Your task to perform on an android device: View the shopping cart on amazon. Add alienware area 51 to the cart on amazon Image 0: 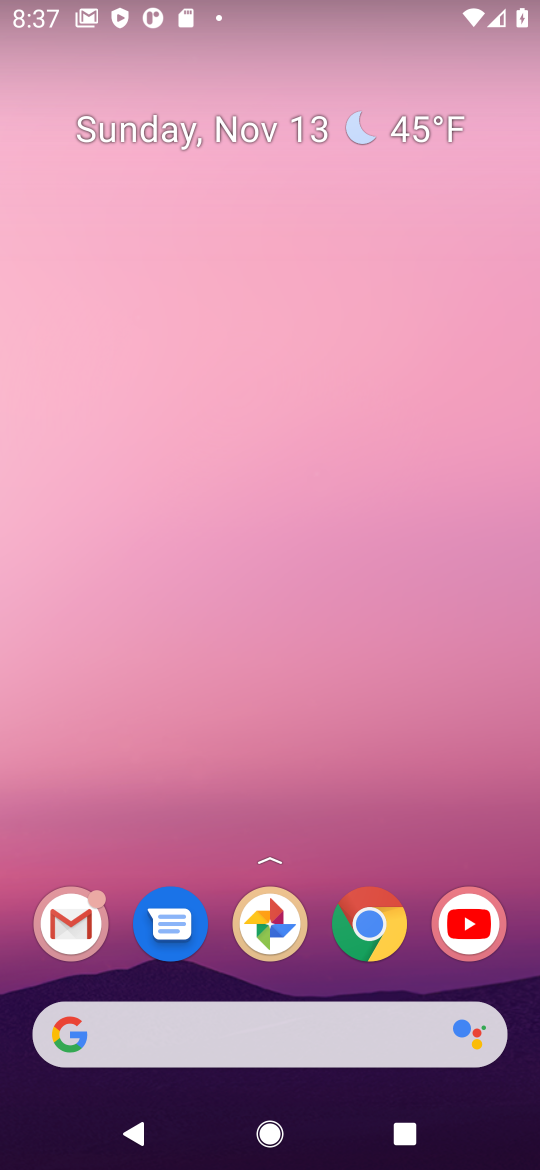
Step 0: click (371, 928)
Your task to perform on an android device: View the shopping cart on amazon. Add alienware area 51 to the cart on amazon Image 1: 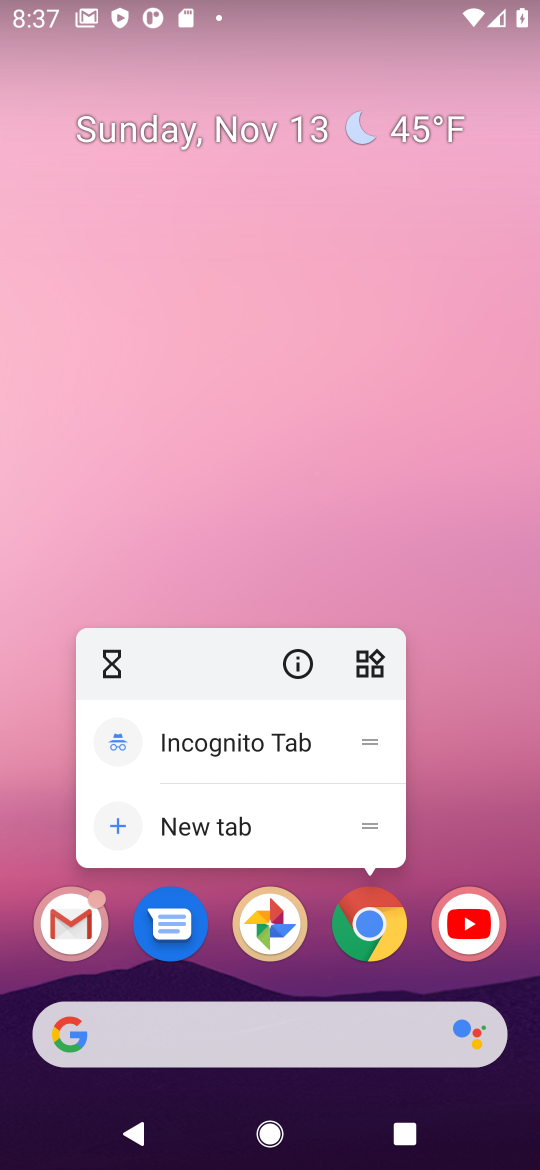
Step 1: click (371, 928)
Your task to perform on an android device: View the shopping cart on amazon. Add alienware area 51 to the cart on amazon Image 2: 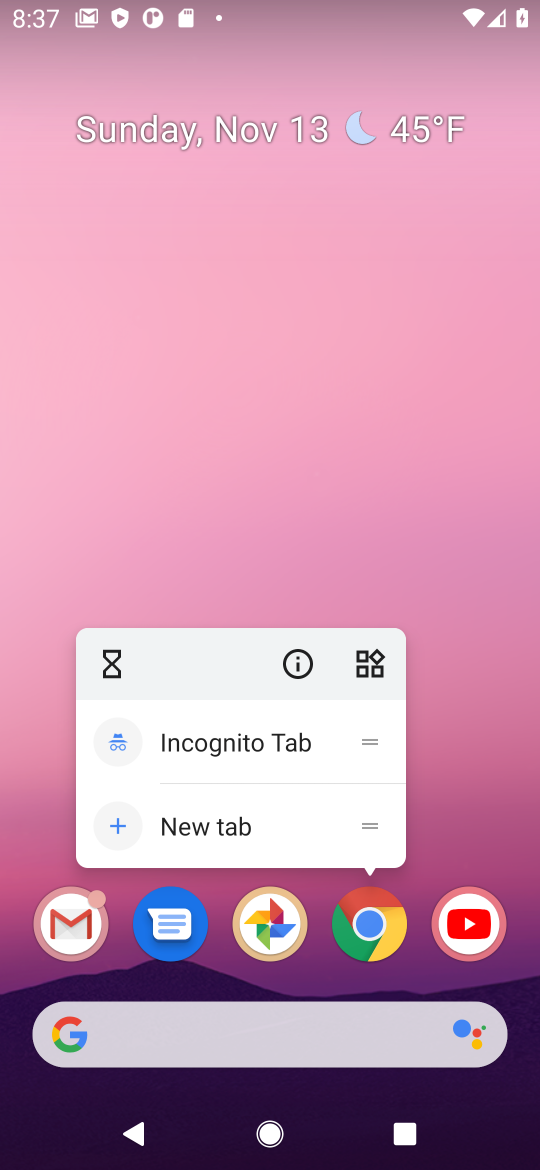
Step 2: click (371, 933)
Your task to perform on an android device: View the shopping cart on amazon. Add alienware area 51 to the cart on amazon Image 3: 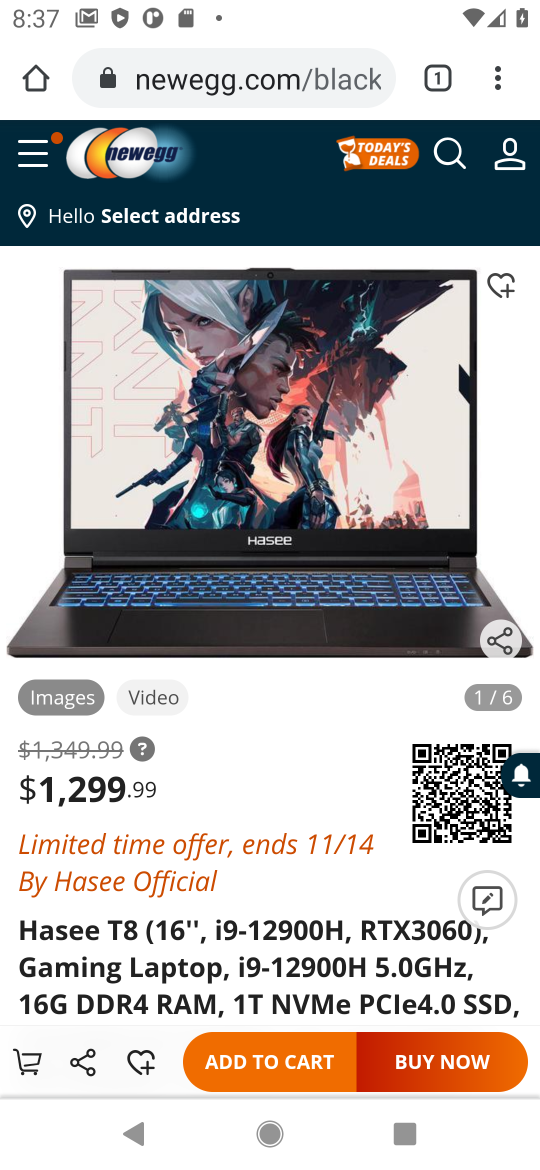
Step 3: click (328, 74)
Your task to perform on an android device: View the shopping cart on amazon. Add alienware area 51 to the cart on amazon Image 4: 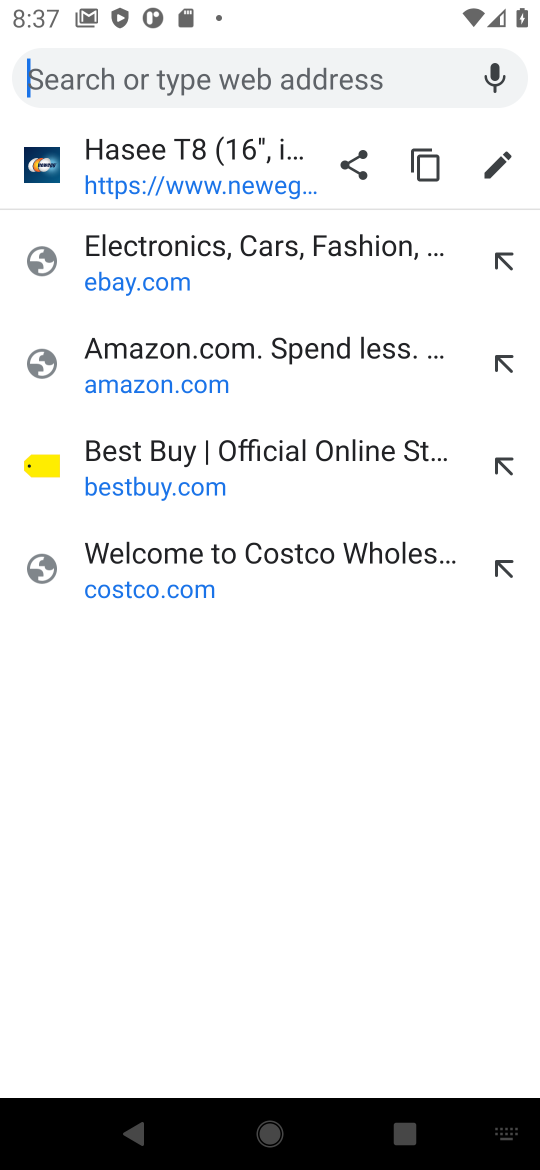
Step 4: click (139, 382)
Your task to perform on an android device: View the shopping cart on amazon. Add alienware area 51 to the cart on amazon Image 5: 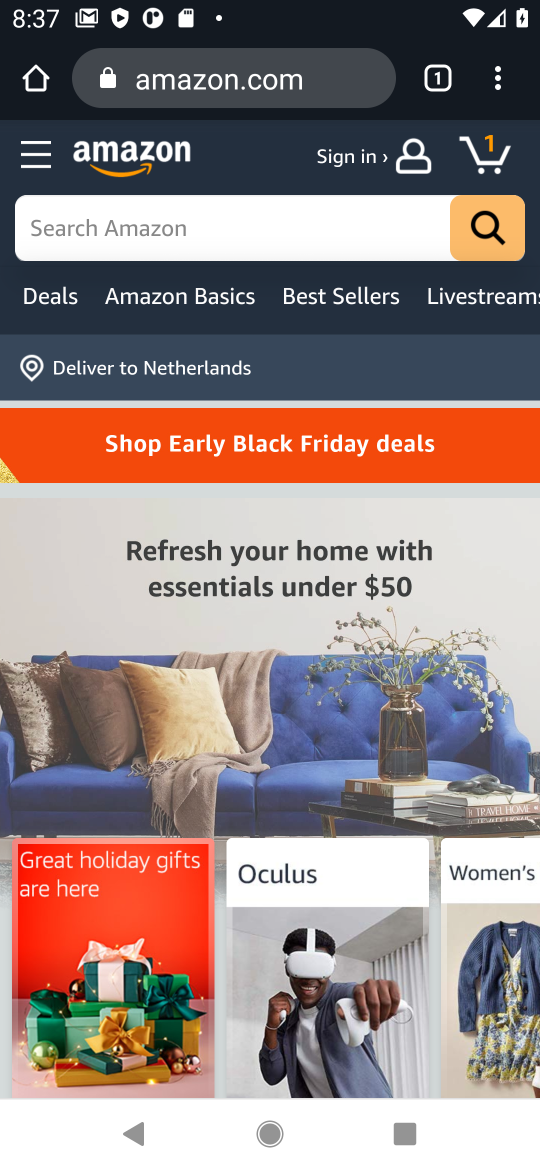
Step 5: click (489, 155)
Your task to perform on an android device: View the shopping cart on amazon. Add alienware area 51 to the cart on amazon Image 6: 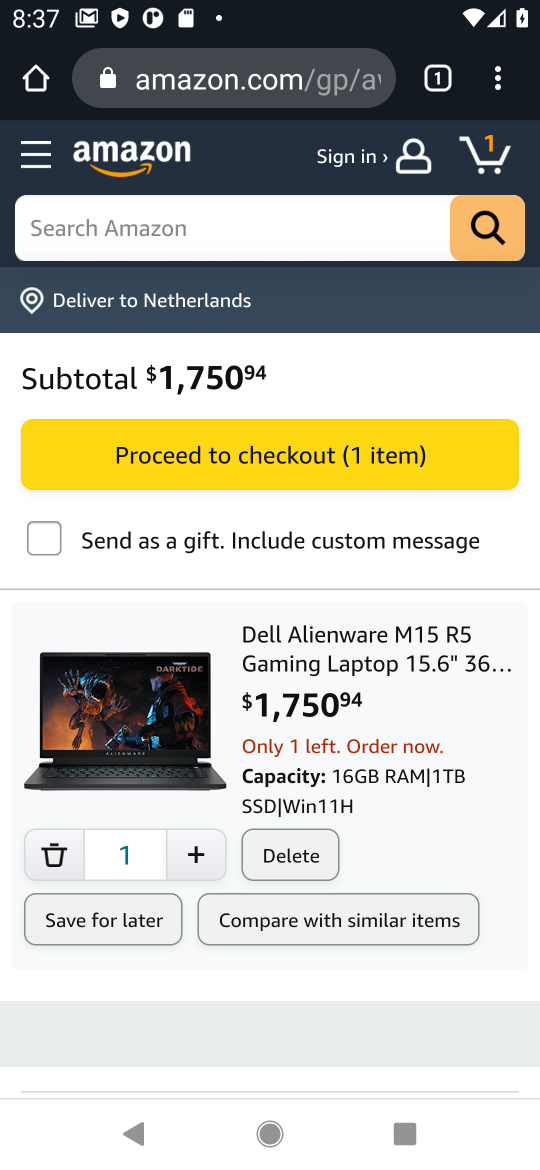
Step 6: click (301, 845)
Your task to perform on an android device: View the shopping cart on amazon. Add alienware area 51 to the cart on amazon Image 7: 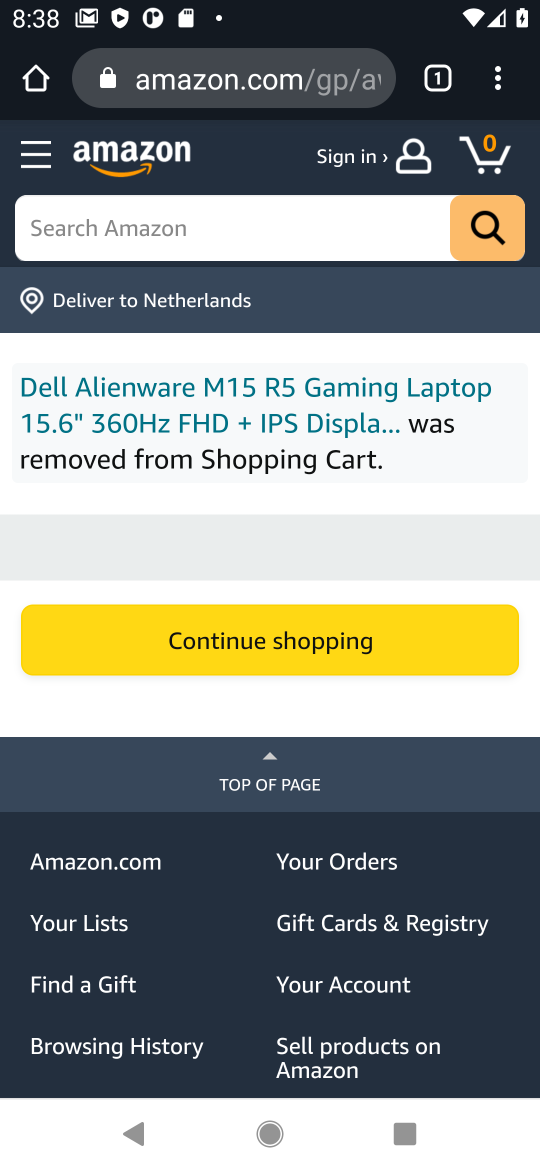
Step 7: click (59, 227)
Your task to perform on an android device: View the shopping cart on amazon. Add alienware area 51 to the cart on amazon Image 8: 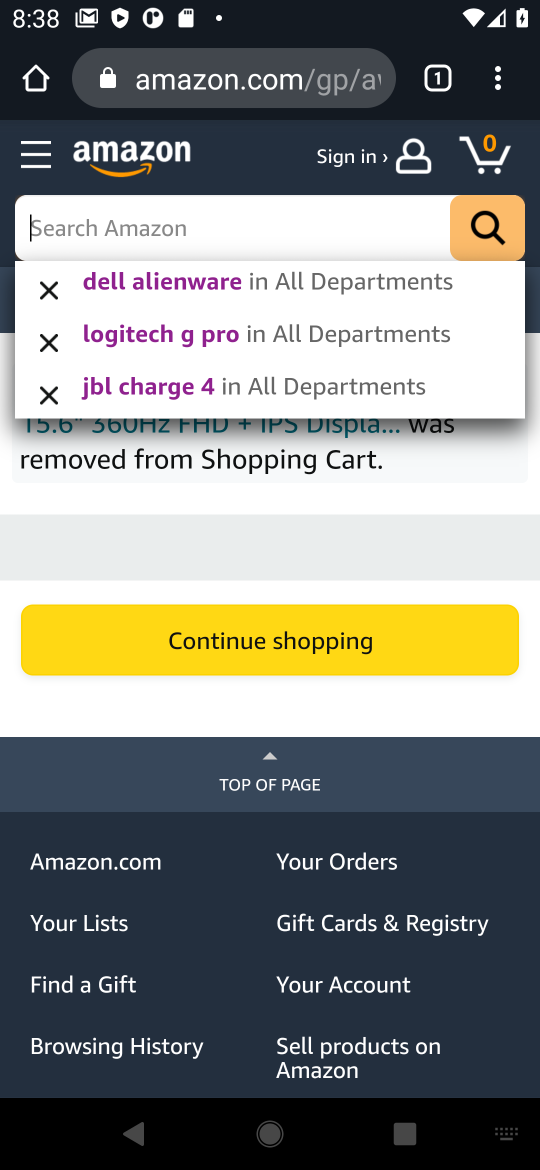
Step 8: type "alienware area 51 "
Your task to perform on an android device: View the shopping cart on amazon. Add alienware area 51 to the cart on amazon Image 9: 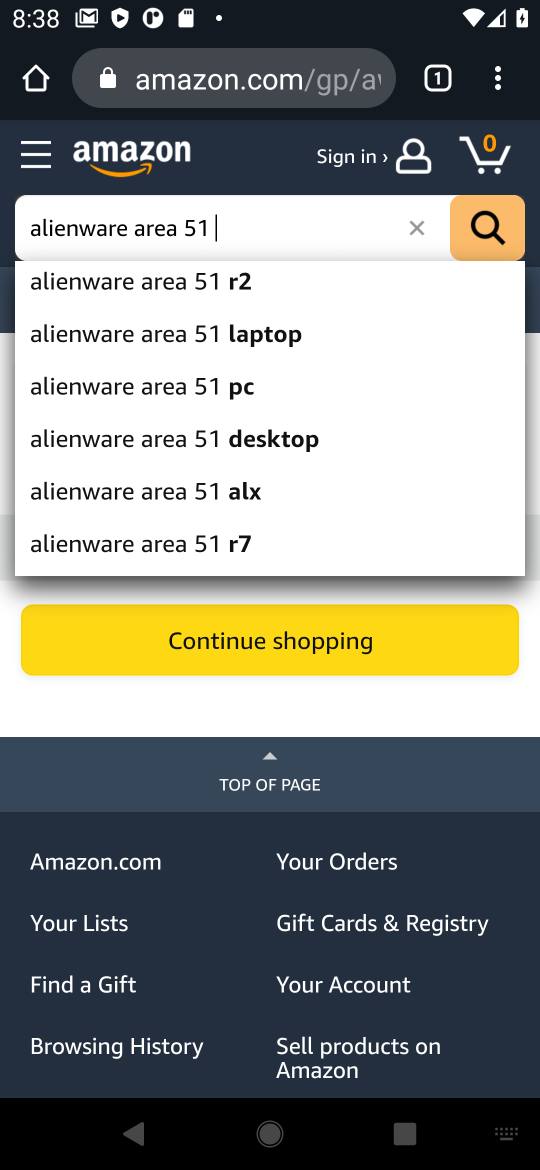
Step 9: press enter
Your task to perform on an android device: View the shopping cart on amazon. Add alienware area 51 to the cart on amazon Image 10: 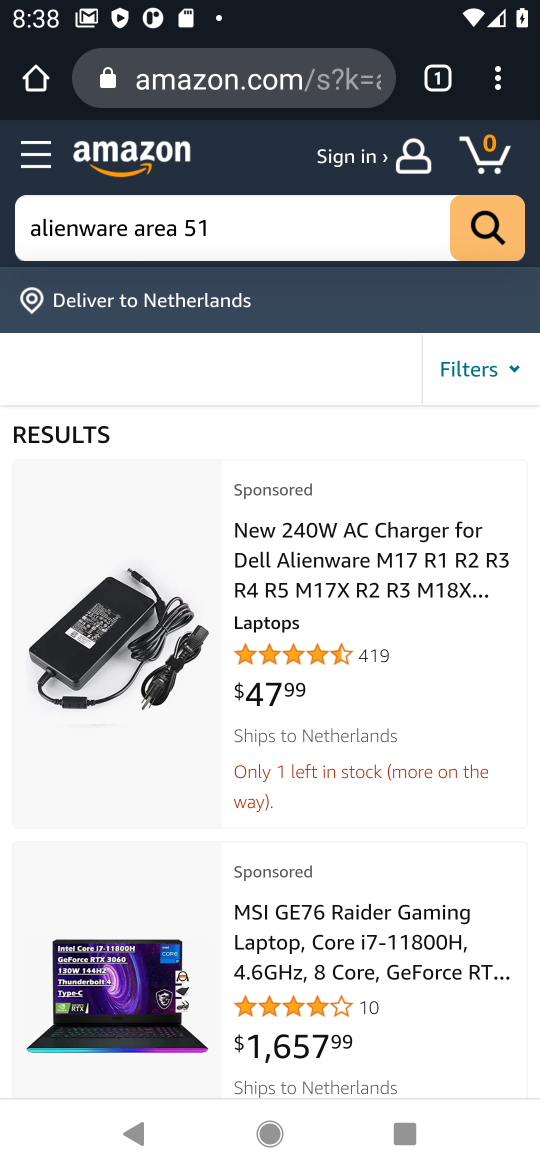
Step 10: drag from (304, 1021) to (357, 667)
Your task to perform on an android device: View the shopping cart on amazon. Add alienware area 51 to the cart on amazon Image 11: 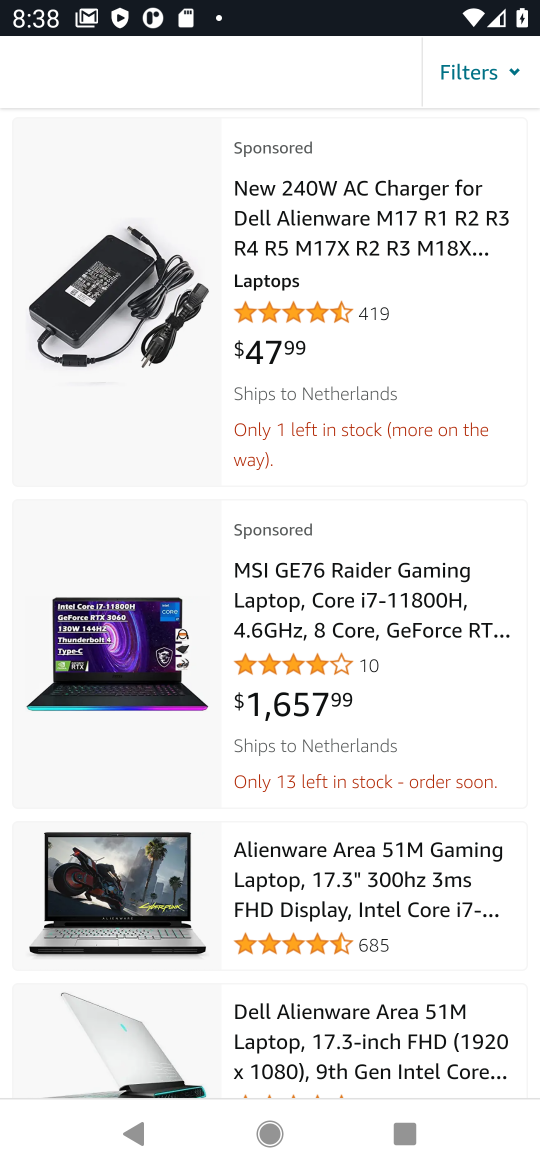
Step 11: click (319, 876)
Your task to perform on an android device: View the shopping cart on amazon. Add alienware area 51 to the cart on amazon Image 12: 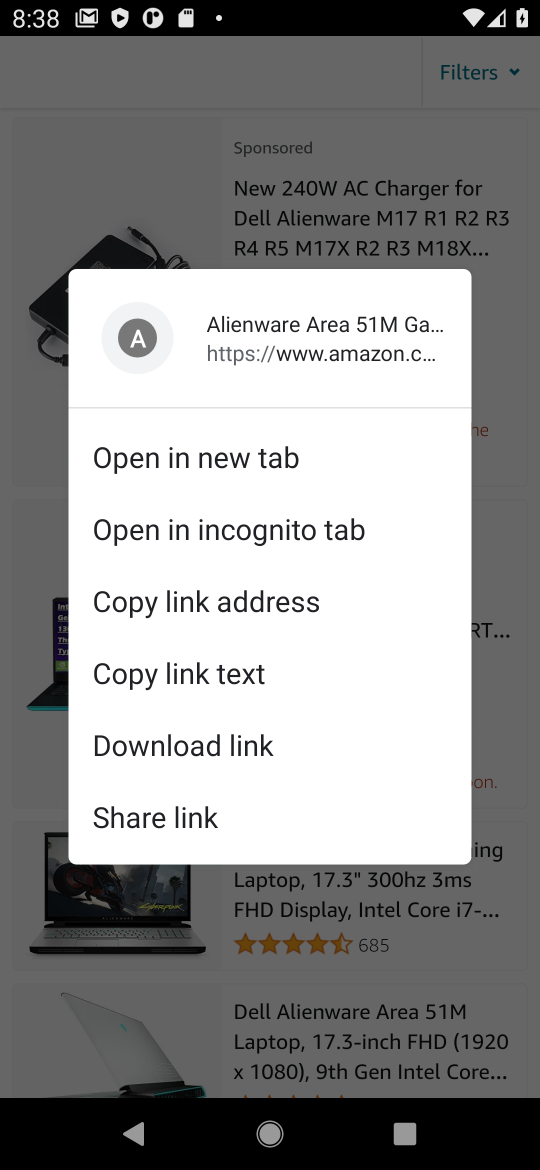
Step 12: click (305, 897)
Your task to perform on an android device: View the shopping cart on amazon. Add alienware area 51 to the cart on amazon Image 13: 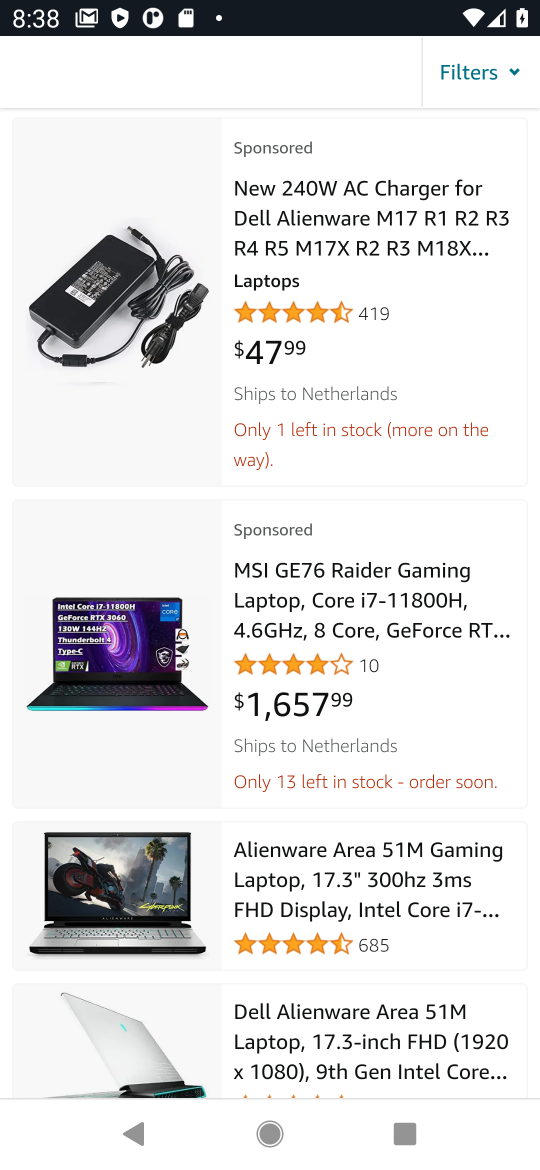
Step 13: click (267, 878)
Your task to perform on an android device: View the shopping cart on amazon. Add alienware area 51 to the cart on amazon Image 14: 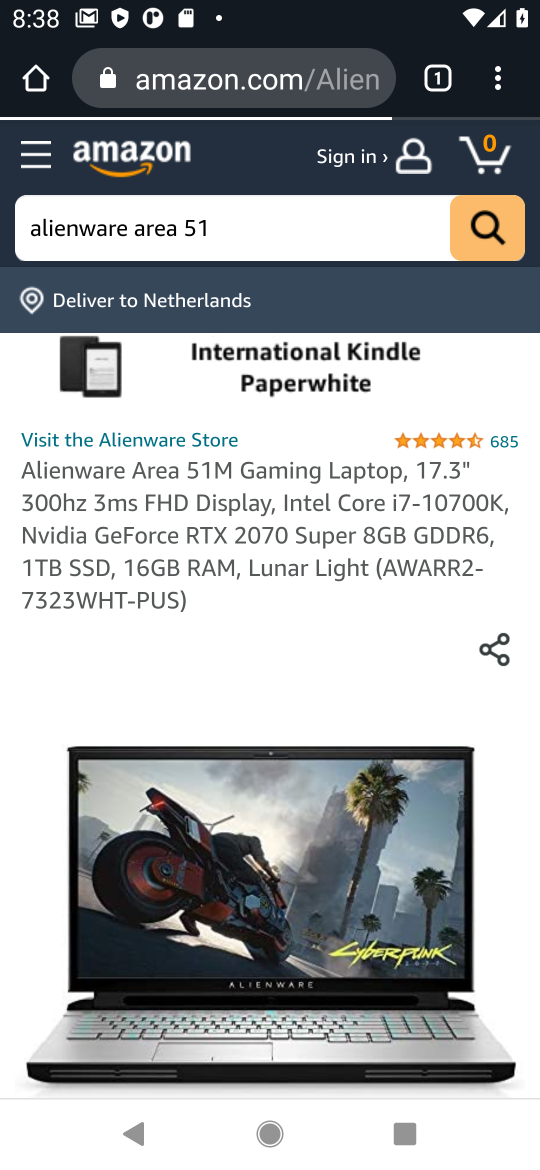
Step 14: task complete